Your task to perform on an android device: turn off javascript in the chrome app Image 0: 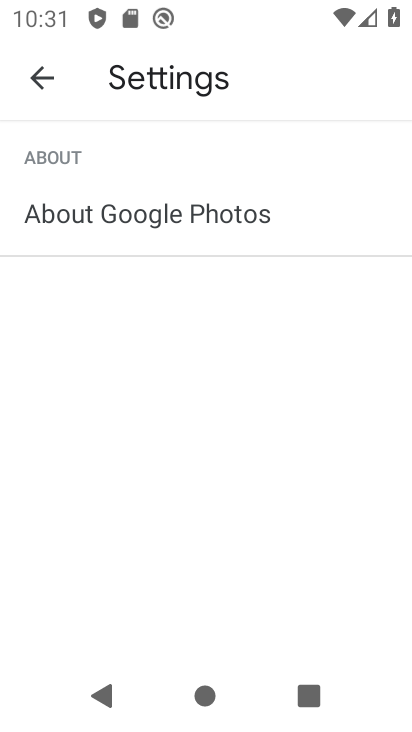
Step 0: press home button
Your task to perform on an android device: turn off javascript in the chrome app Image 1: 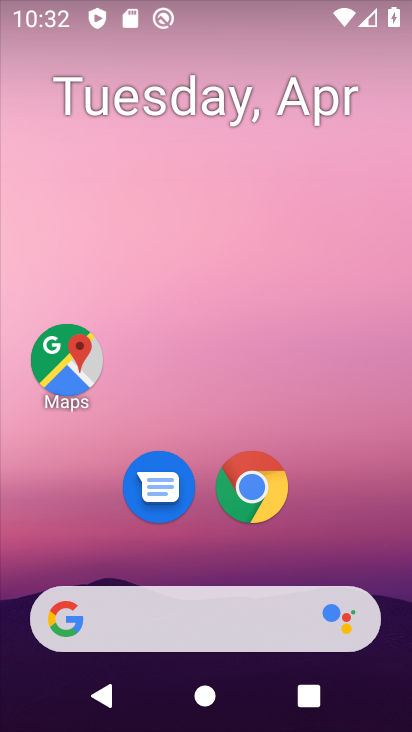
Step 1: click (234, 514)
Your task to perform on an android device: turn off javascript in the chrome app Image 2: 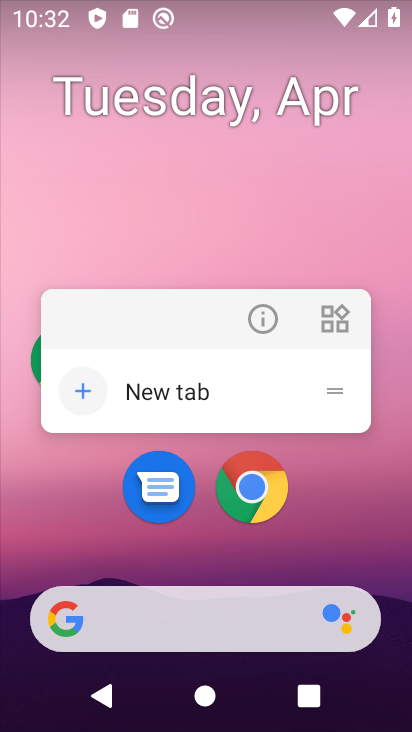
Step 2: click (267, 508)
Your task to perform on an android device: turn off javascript in the chrome app Image 3: 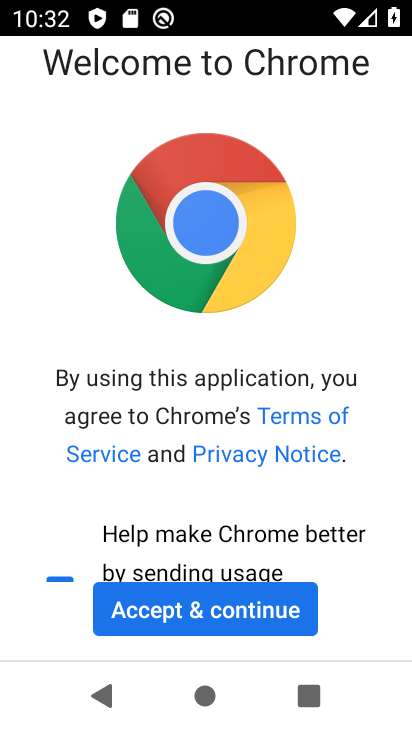
Step 3: click (196, 602)
Your task to perform on an android device: turn off javascript in the chrome app Image 4: 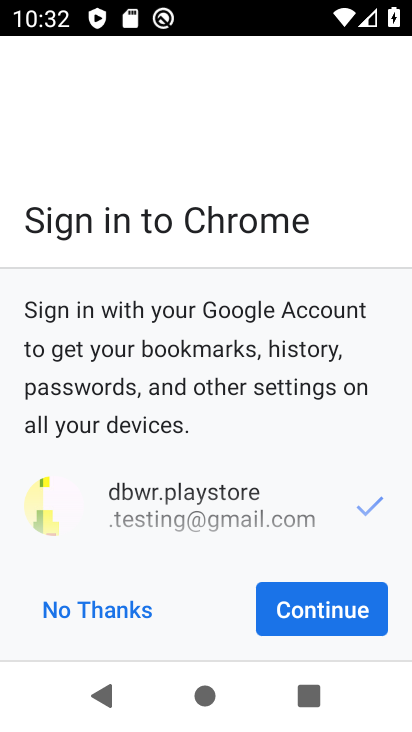
Step 4: click (287, 611)
Your task to perform on an android device: turn off javascript in the chrome app Image 5: 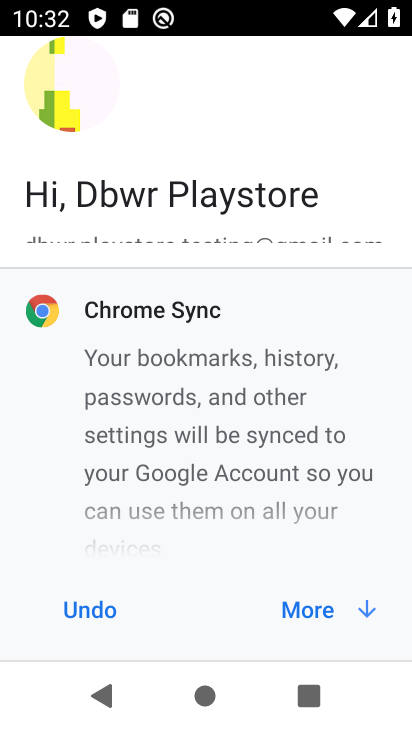
Step 5: click (309, 616)
Your task to perform on an android device: turn off javascript in the chrome app Image 6: 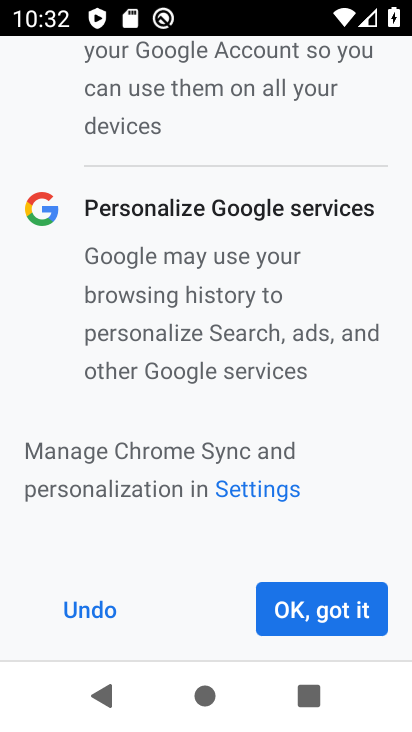
Step 6: click (309, 616)
Your task to perform on an android device: turn off javascript in the chrome app Image 7: 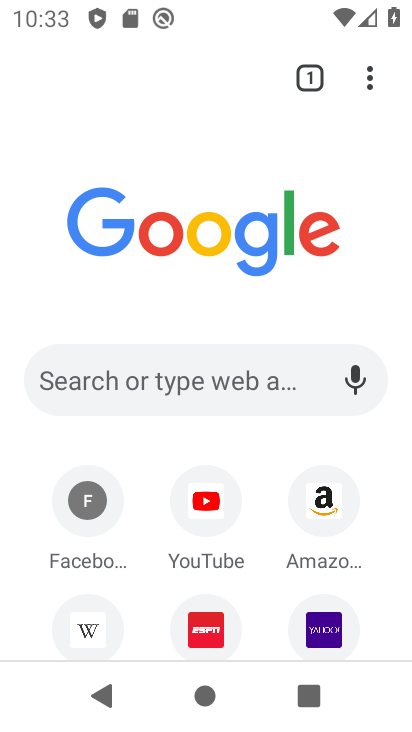
Step 7: drag from (364, 79) to (103, 539)
Your task to perform on an android device: turn off javascript in the chrome app Image 8: 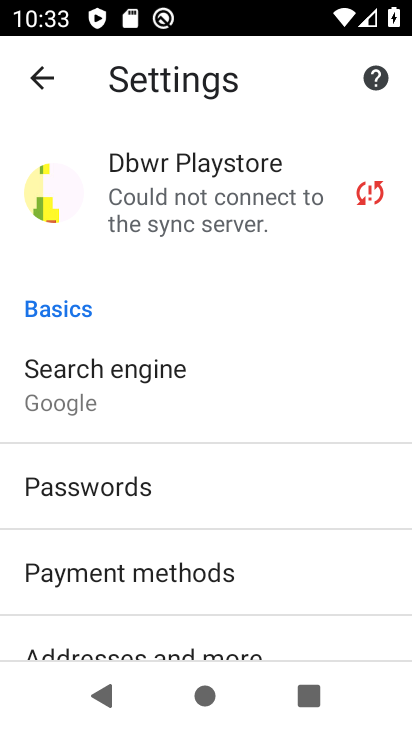
Step 8: drag from (168, 555) to (116, 71)
Your task to perform on an android device: turn off javascript in the chrome app Image 9: 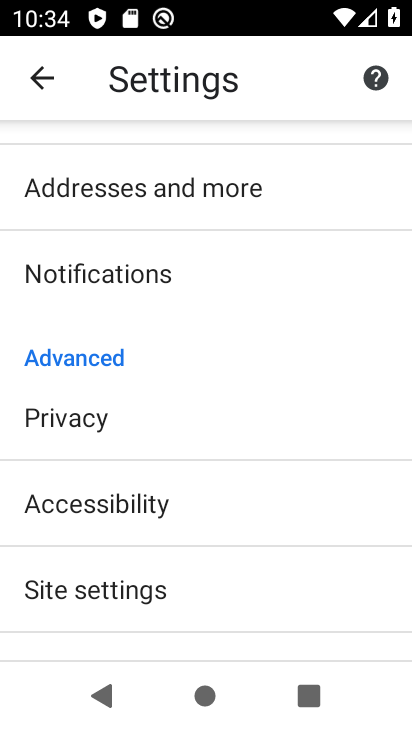
Step 9: click (127, 593)
Your task to perform on an android device: turn off javascript in the chrome app Image 10: 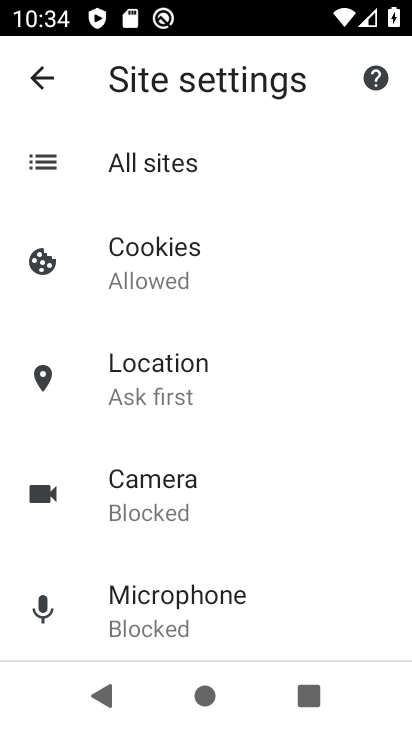
Step 10: drag from (181, 576) to (145, 118)
Your task to perform on an android device: turn off javascript in the chrome app Image 11: 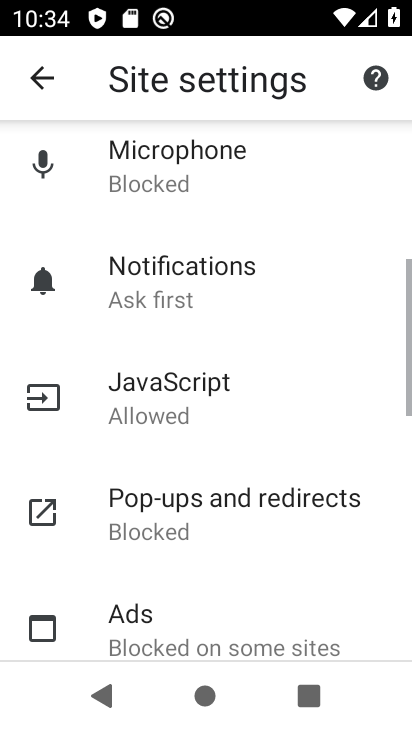
Step 11: click (180, 424)
Your task to perform on an android device: turn off javascript in the chrome app Image 12: 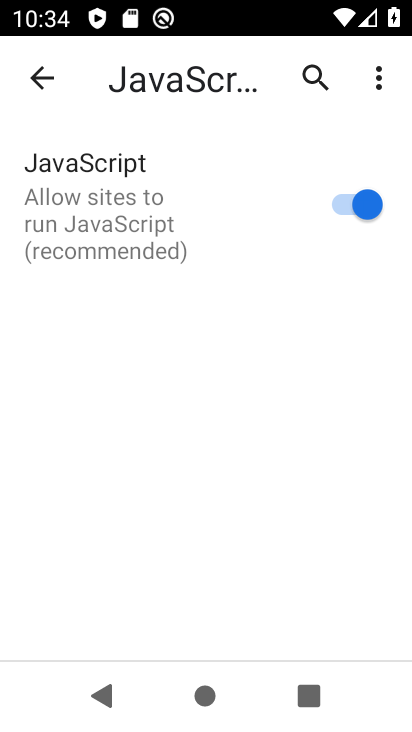
Step 12: click (353, 194)
Your task to perform on an android device: turn off javascript in the chrome app Image 13: 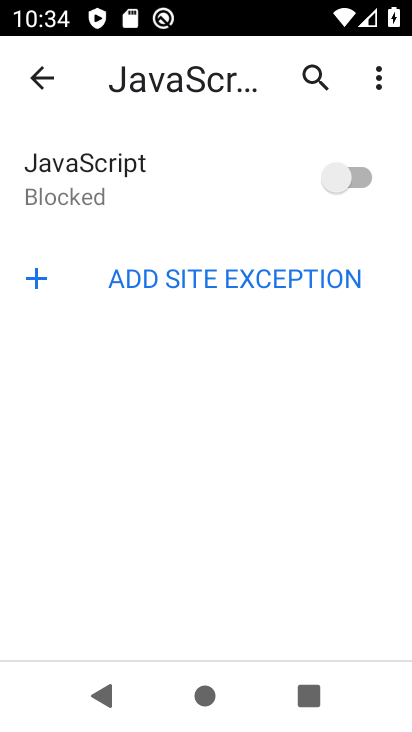
Step 13: task complete